Your task to perform on an android device: Go to accessibility settings Image 0: 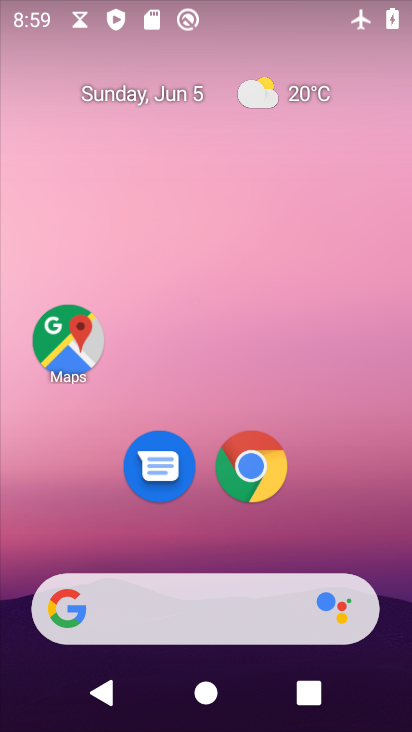
Step 0: drag from (198, 548) to (210, 230)
Your task to perform on an android device: Go to accessibility settings Image 1: 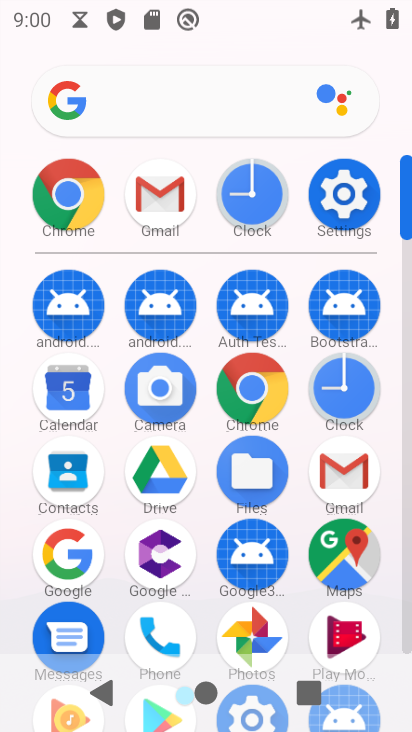
Step 1: drag from (295, 569) to (310, 364)
Your task to perform on an android device: Go to accessibility settings Image 2: 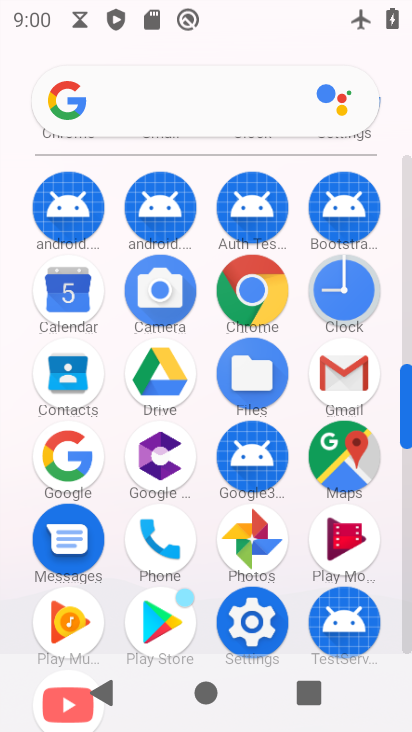
Step 2: drag from (293, 295) to (297, 441)
Your task to perform on an android device: Go to accessibility settings Image 3: 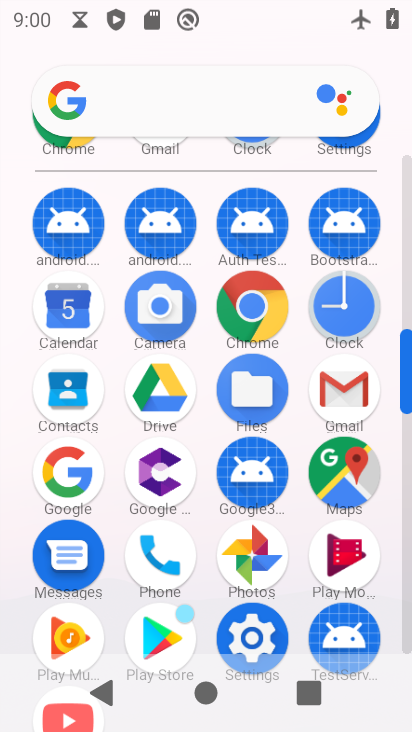
Step 3: drag from (298, 381) to (279, 526)
Your task to perform on an android device: Go to accessibility settings Image 4: 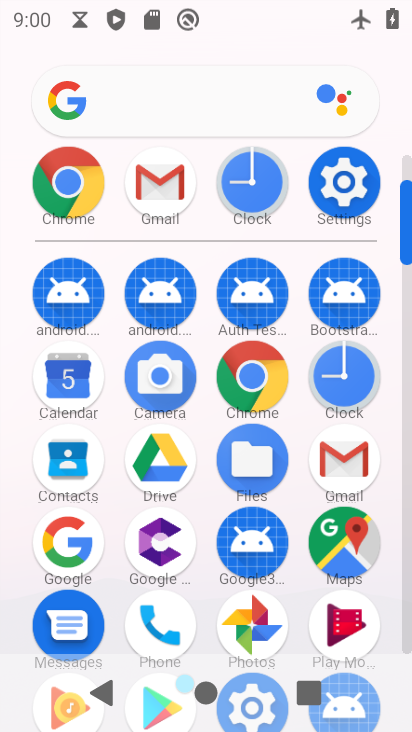
Step 4: drag from (295, 441) to (279, 570)
Your task to perform on an android device: Go to accessibility settings Image 5: 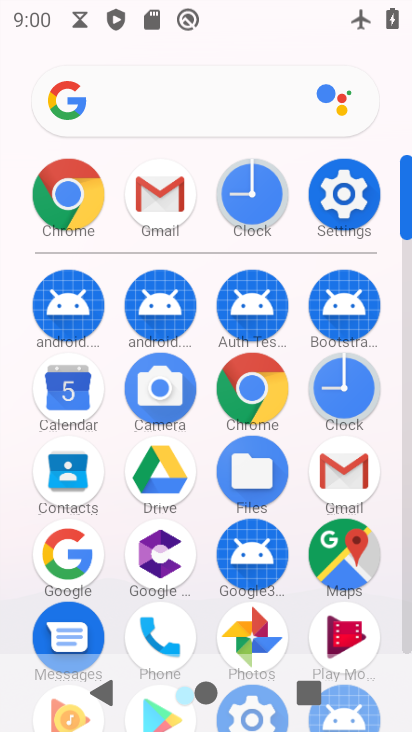
Step 5: drag from (107, 577) to (137, 310)
Your task to perform on an android device: Go to accessibility settings Image 6: 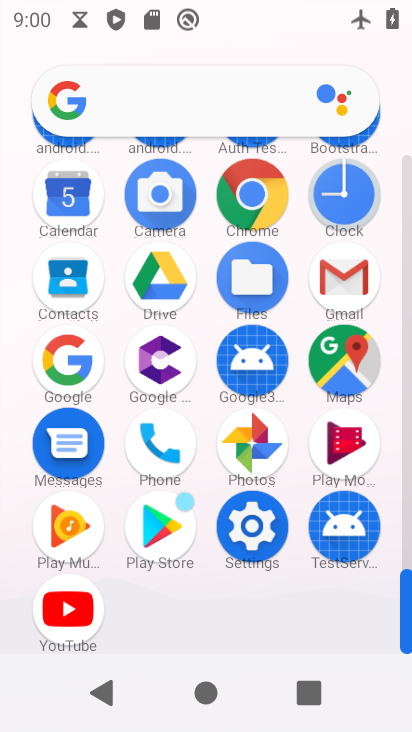
Step 6: drag from (298, 220) to (291, 507)
Your task to perform on an android device: Go to accessibility settings Image 7: 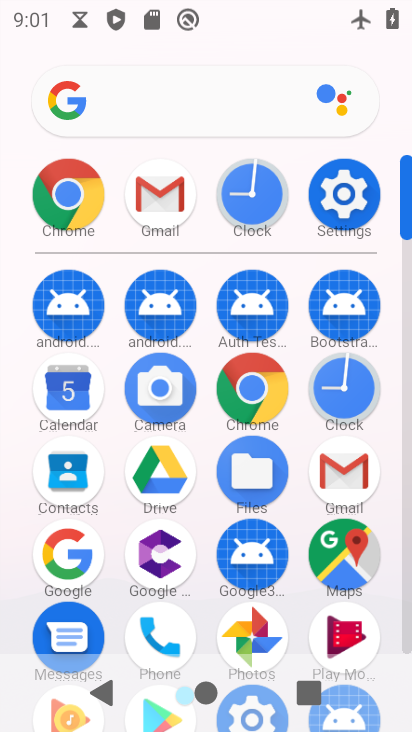
Step 7: click (350, 200)
Your task to perform on an android device: Go to accessibility settings Image 8: 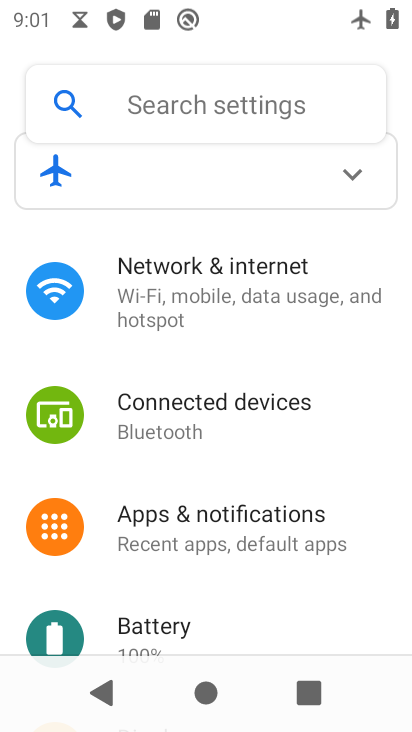
Step 8: drag from (230, 581) to (222, 313)
Your task to perform on an android device: Go to accessibility settings Image 9: 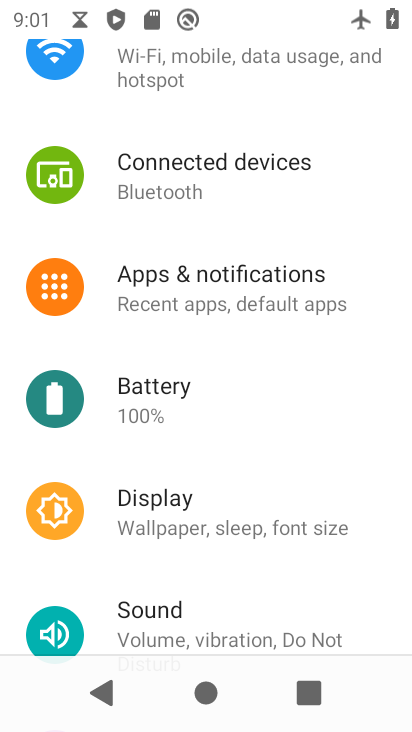
Step 9: drag from (208, 561) to (231, 296)
Your task to perform on an android device: Go to accessibility settings Image 10: 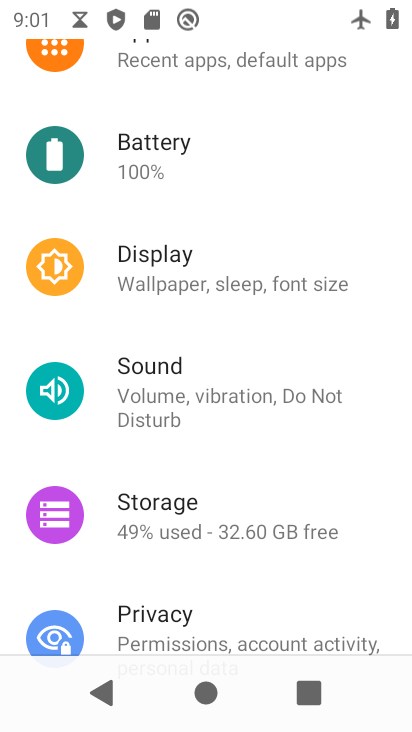
Step 10: drag from (210, 575) to (252, 331)
Your task to perform on an android device: Go to accessibility settings Image 11: 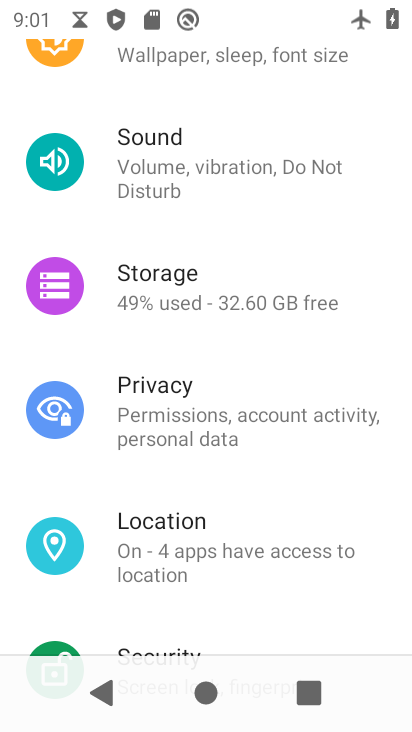
Step 11: drag from (193, 545) to (245, 254)
Your task to perform on an android device: Go to accessibility settings Image 12: 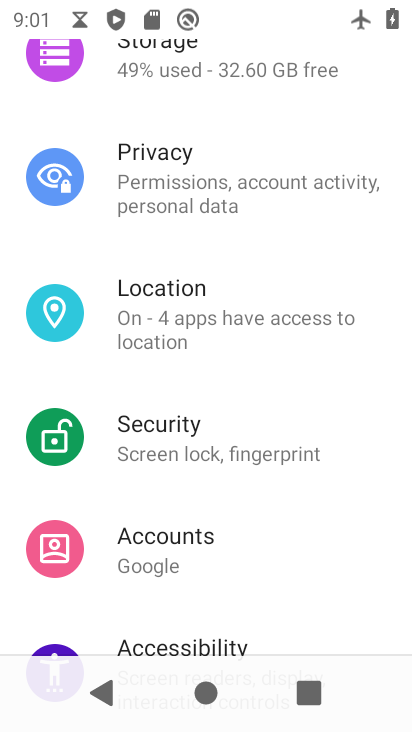
Step 12: drag from (214, 509) to (231, 245)
Your task to perform on an android device: Go to accessibility settings Image 13: 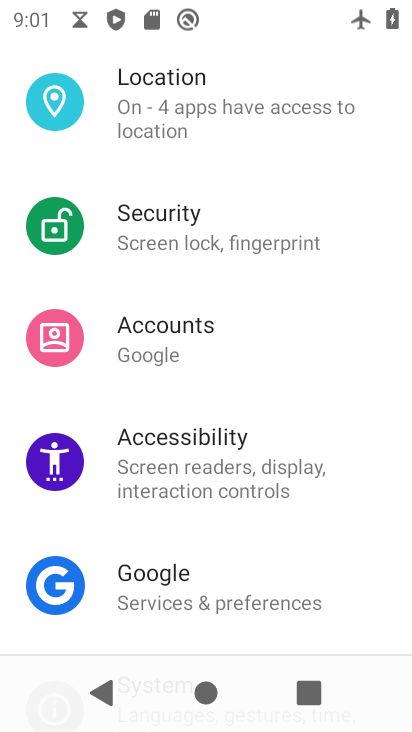
Step 13: click (160, 457)
Your task to perform on an android device: Go to accessibility settings Image 14: 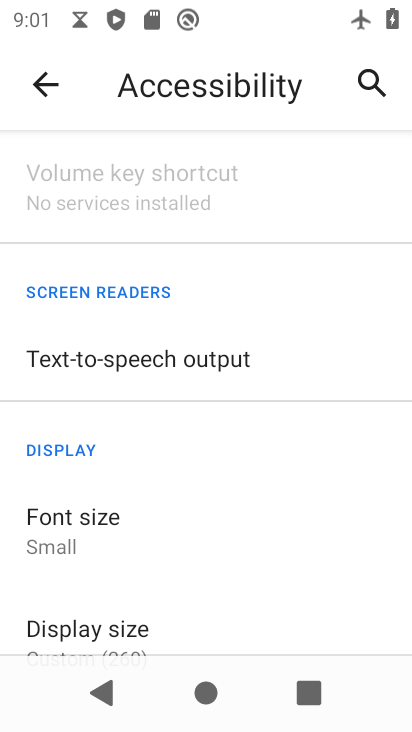
Step 14: task complete